Your task to perform on an android device: open a bookmark in the chrome app Image 0: 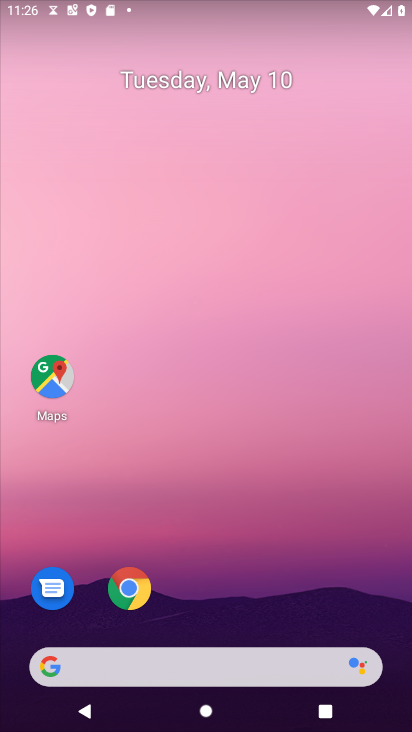
Step 0: drag from (306, 561) to (3, 26)
Your task to perform on an android device: open a bookmark in the chrome app Image 1: 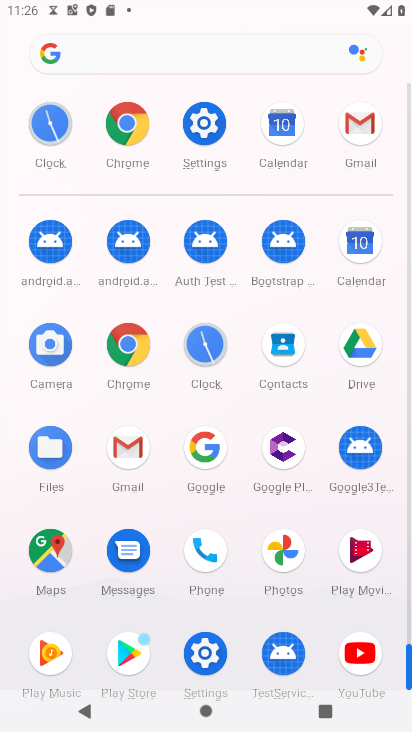
Step 1: click (114, 134)
Your task to perform on an android device: open a bookmark in the chrome app Image 2: 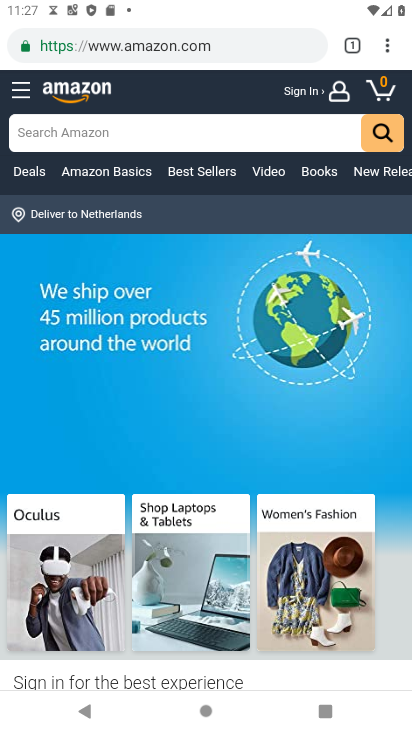
Step 2: click (384, 45)
Your task to perform on an android device: open a bookmark in the chrome app Image 3: 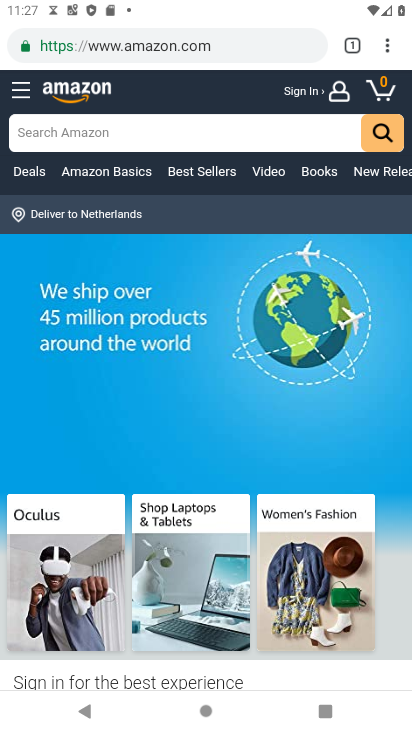
Step 3: drag from (391, 44) to (223, 174)
Your task to perform on an android device: open a bookmark in the chrome app Image 4: 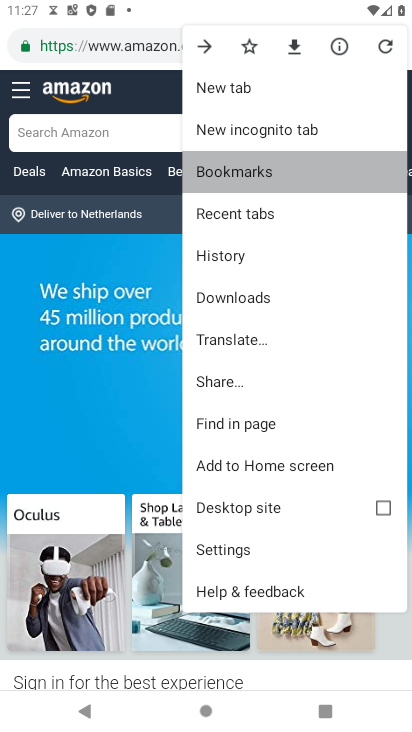
Step 4: click (221, 176)
Your task to perform on an android device: open a bookmark in the chrome app Image 5: 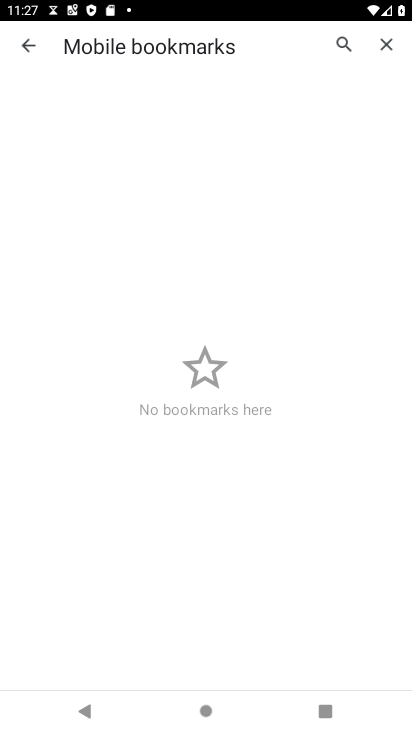
Step 5: task complete